Your task to perform on an android device: See recent photos Image 0: 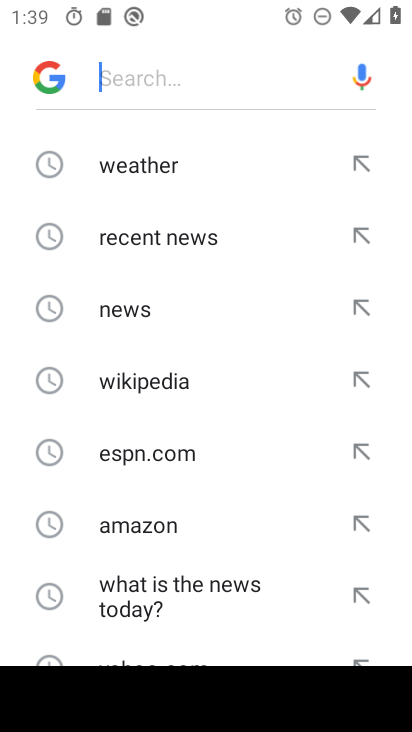
Step 0: press home button
Your task to perform on an android device: See recent photos Image 1: 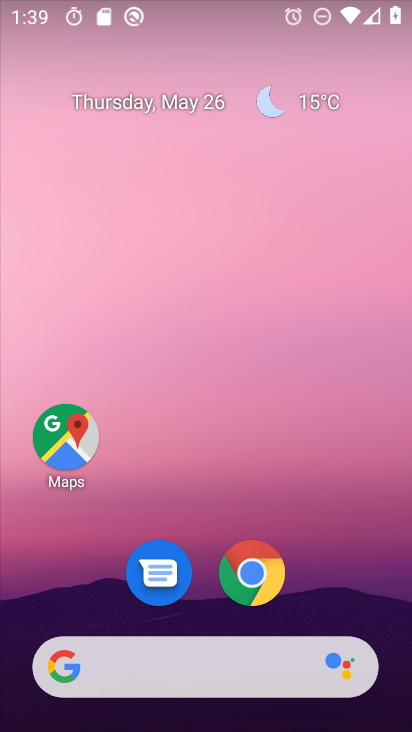
Step 1: drag from (332, 614) to (272, 13)
Your task to perform on an android device: See recent photos Image 2: 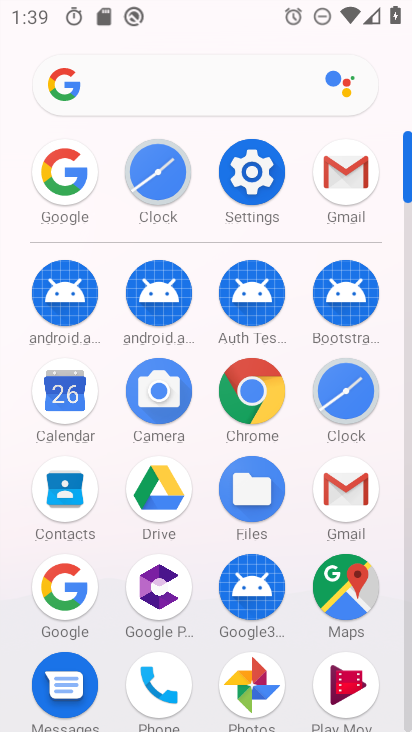
Step 2: click (258, 681)
Your task to perform on an android device: See recent photos Image 3: 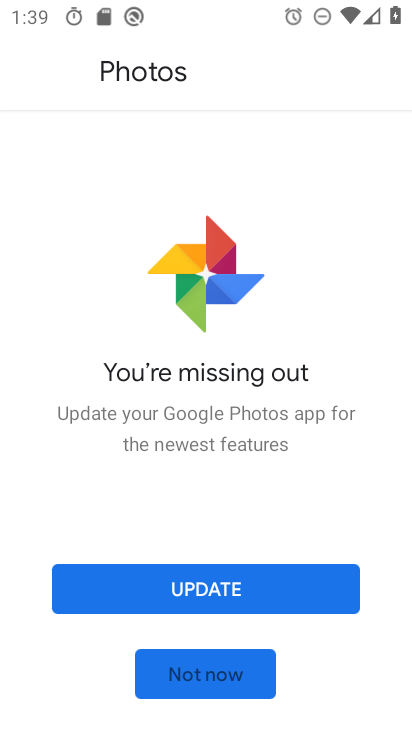
Step 3: click (198, 678)
Your task to perform on an android device: See recent photos Image 4: 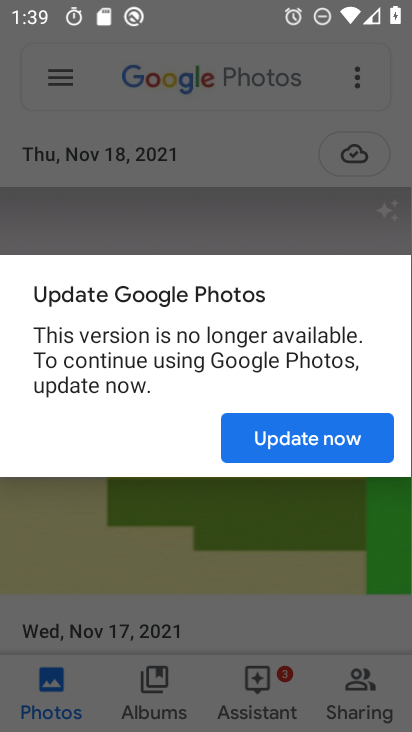
Step 4: click (340, 447)
Your task to perform on an android device: See recent photos Image 5: 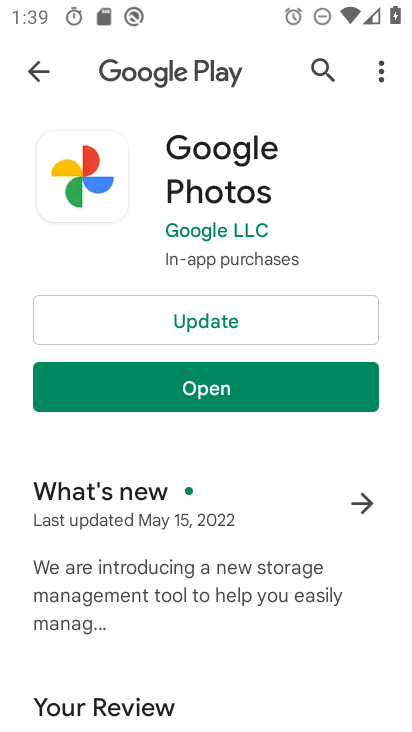
Step 5: click (206, 396)
Your task to perform on an android device: See recent photos Image 6: 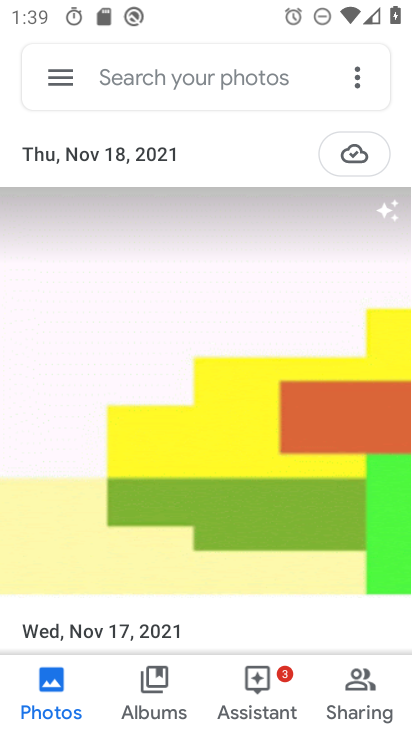
Step 6: task complete